Your task to perform on an android device: add a label to a message in the gmail app Image 0: 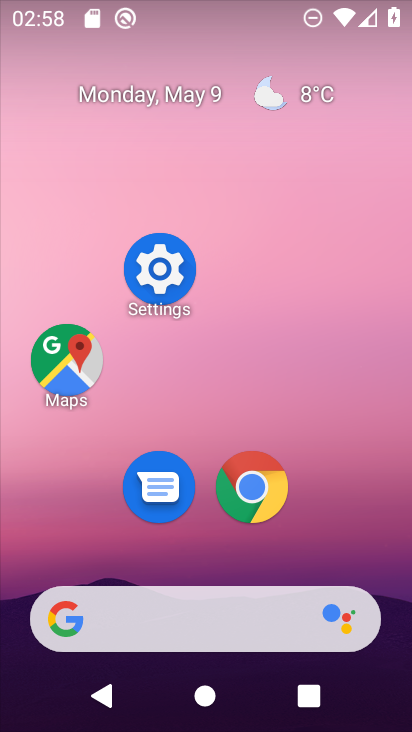
Step 0: drag from (357, 533) to (332, 287)
Your task to perform on an android device: add a label to a message in the gmail app Image 1: 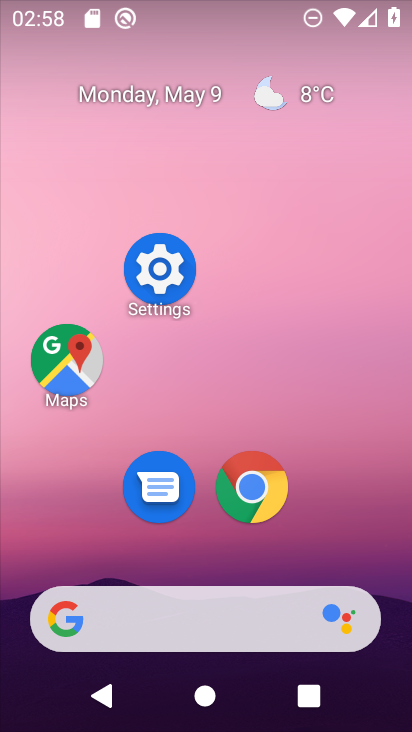
Step 1: drag from (316, 580) to (270, 176)
Your task to perform on an android device: add a label to a message in the gmail app Image 2: 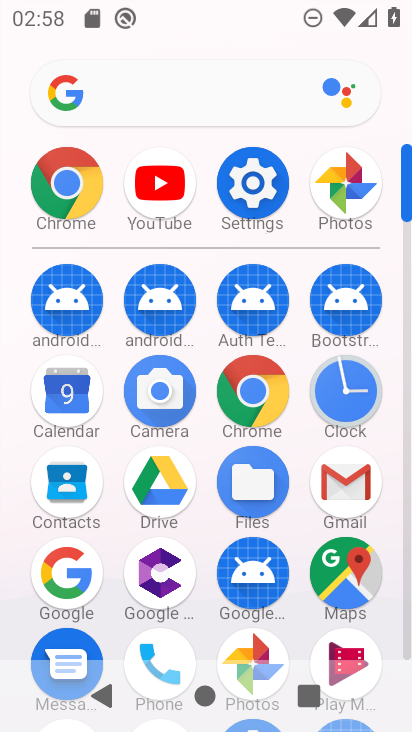
Step 2: click (356, 484)
Your task to perform on an android device: add a label to a message in the gmail app Image 3: 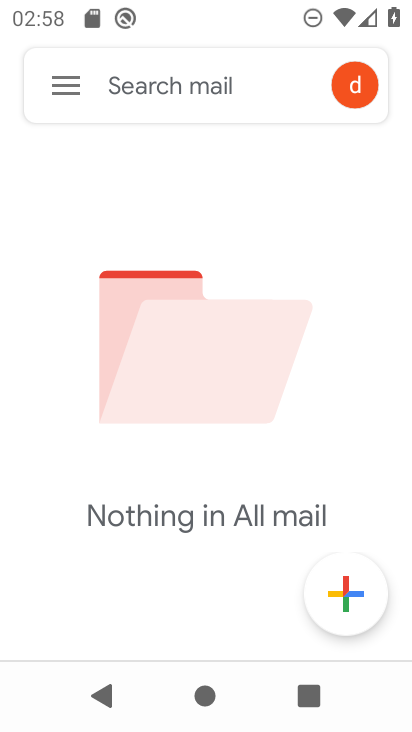
Step 3: click (62, 81)
Your task to perform on an android device: add a label to a message in the gmail app Image 4: 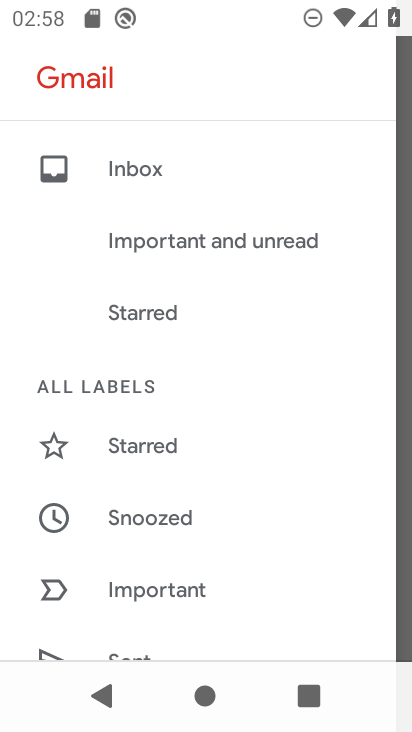
Step 4: drag from (198, 570) to (177, 314)
Your task to perform on an android device: add a label to a message in the gmail app Image 5: 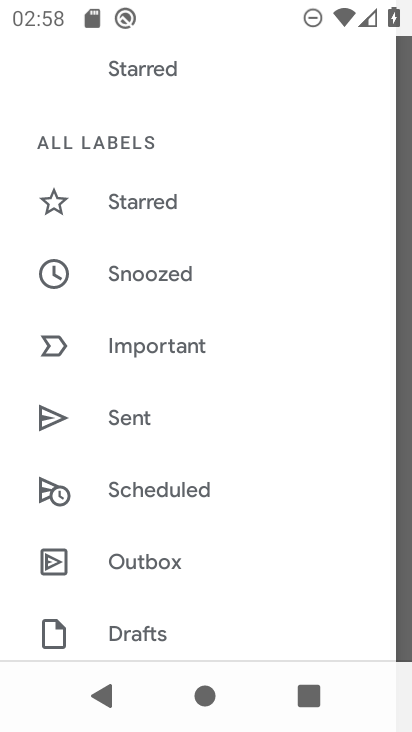
Step 5: drag from (197, 621) to (162, 297)
Your task to perform on an android device: add a label to a message in the gmail app Image 6: 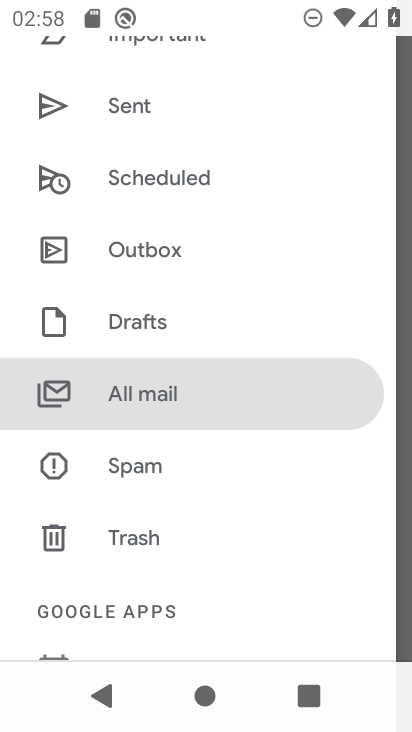
Step 6: click (151, 400)
Your task to perform on an android device: add a label to a message in the gmail app Image 7: 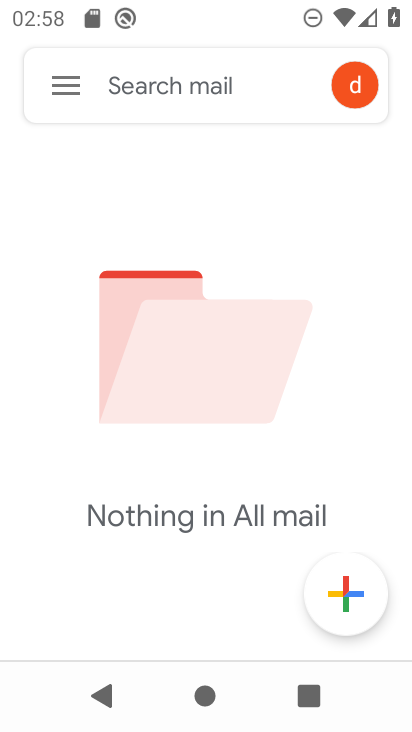
Step 7: task complete